Your task to perform on an android device: Go to Android settings Image 0: 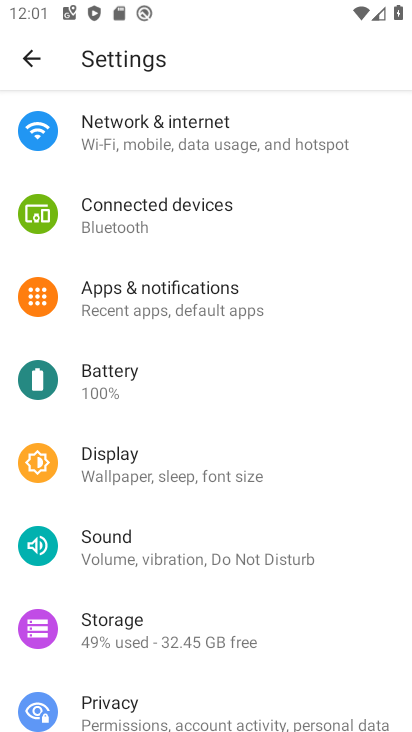
Step 0: drag from (121, 608) to (352, 30)
Your task to perform on an android device: Go to Android settings Image 1: 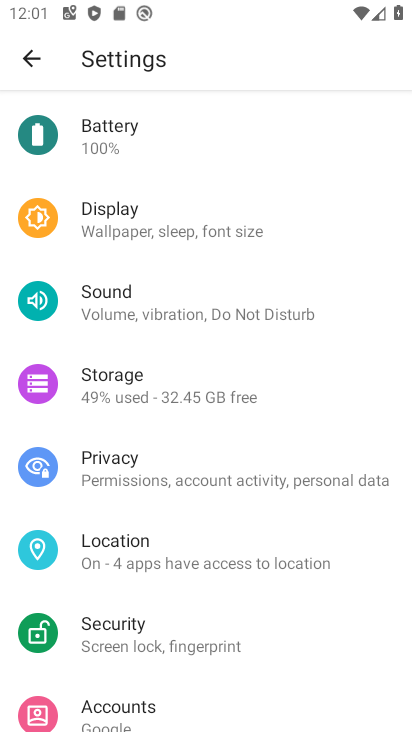
Step 1: task complete